Your task to perform on an android device: Go to internet settings Image 0: 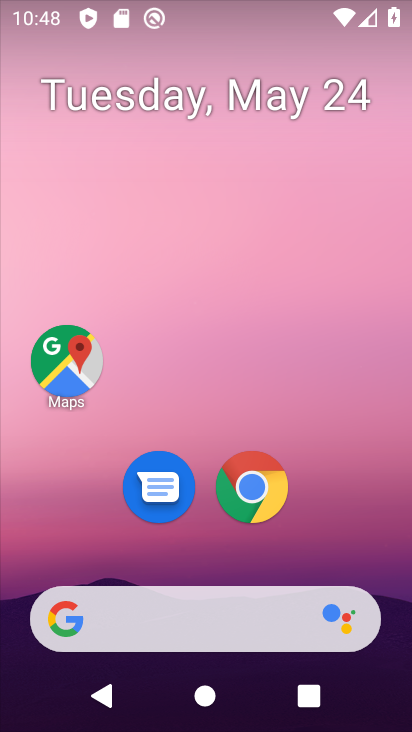
Step 0: drag from (195, 547) to (267, 78)
Your task to perform on an android device: Go to internet settings Image 1: 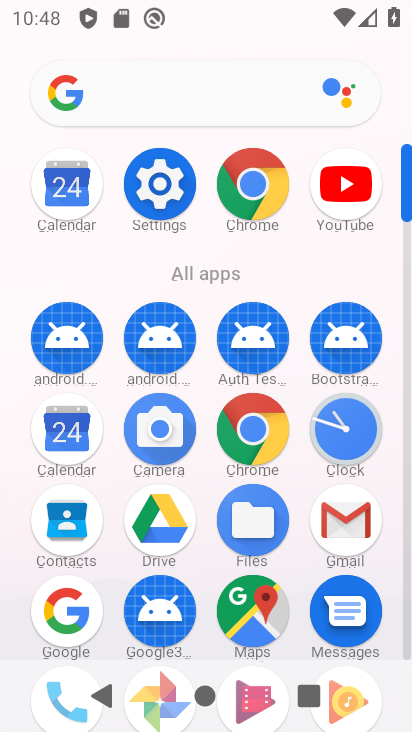
Step 1: click (158, 177)
Your task to perform on an android device: Go to internet settings Image 2: 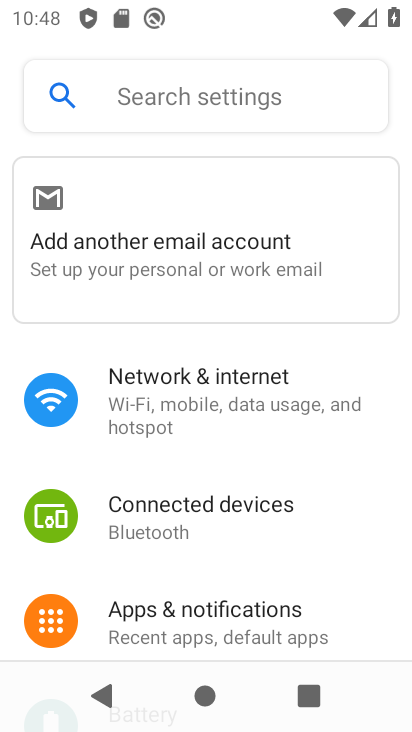
Step 2: click (211, 387)
Your task to perform on an android device: Go to internet settings Image 3: 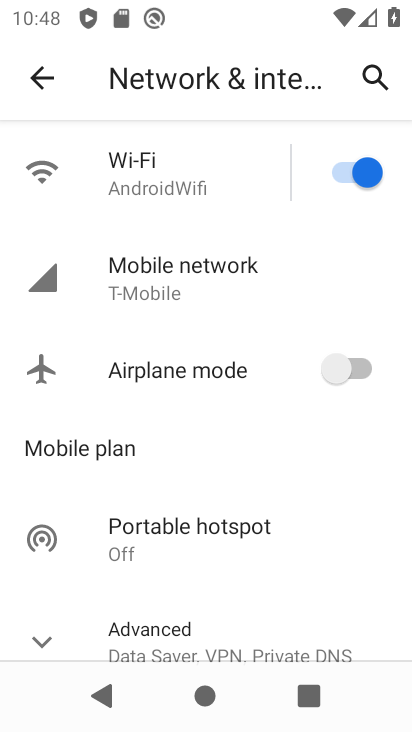
Step 3: task complete